Your task to perform on an android device: turn pop-ups on in chrome Image 0: 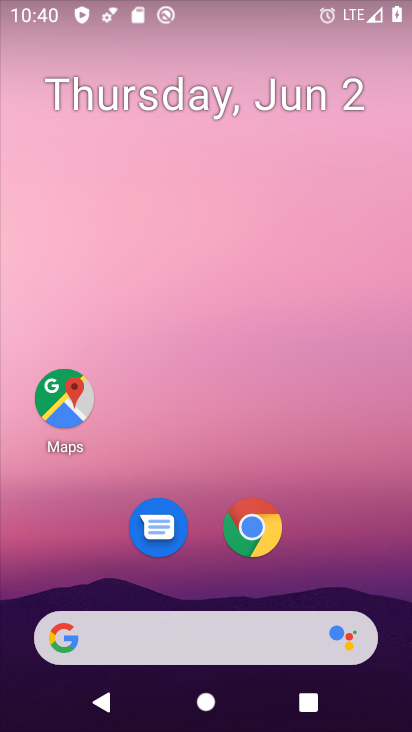
Step 0: click (258, 521)
Your task to perform on an android device: turn pop-ups on in chrome Image 1: 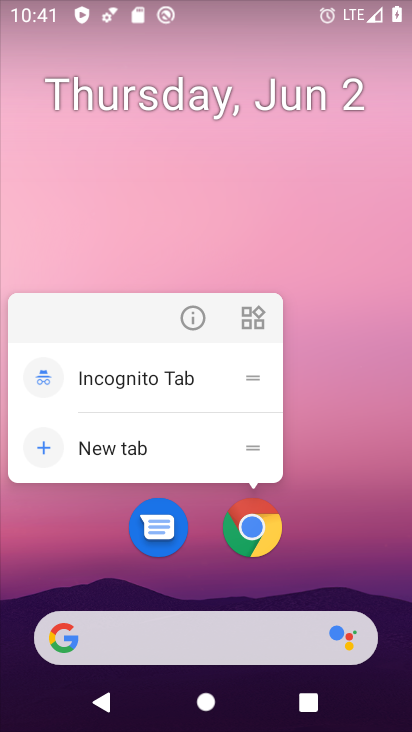
Step 1: click (258, 521)
Your task to perform on an android device: turn pop-ups on in chrome Image 2: 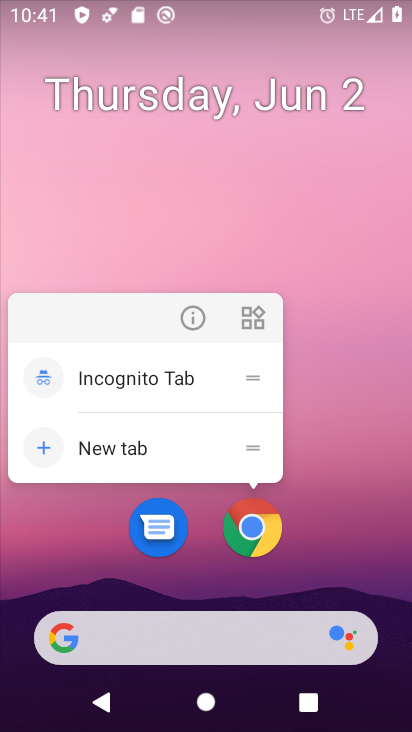
Step 2: click (245, 524)
Your task to perform on an android device: turn pop-ups on in chrome Image 3: 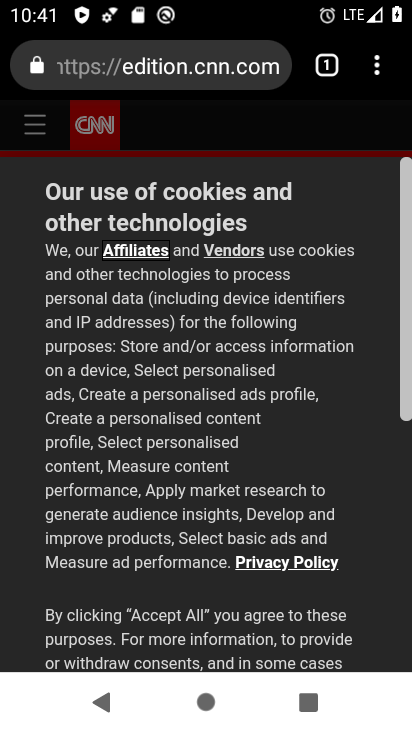
Step 3: drag from (378, 69) to (153, 576)
Your task to perform on an android device: turn pop-ups on in chrome Image 4: 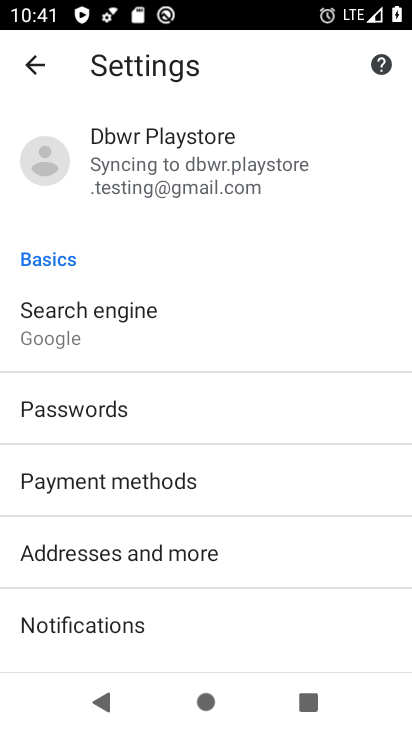
Step 4: drag from (188, 555) to (181, 268)
Your task to perform on an android device: turn pop-ups on in chrome Image 5: 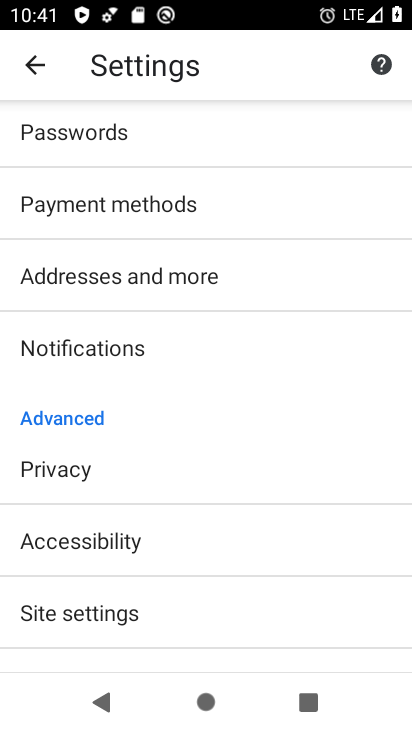
Step 5: click (125, 621)
Your task to perform on an android device: turn pop-ups on in chrome Image 6: 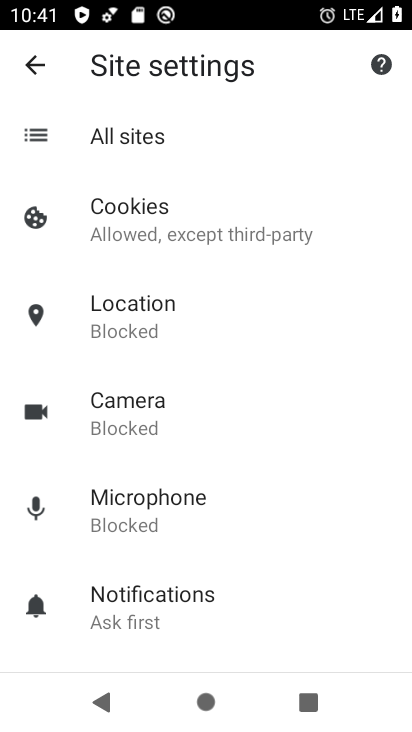
Step 6: drag from (169, 533) to (166, 157)
Your task to perform on an android device: turn pop-ups on in chrome Image 7: 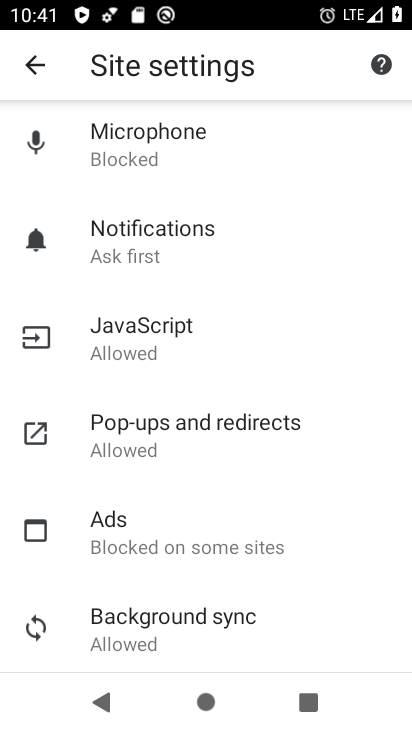
Step 7: click (172, 454)
Your task to perform on an android device: turn pop-ups on in chrome Image 8: 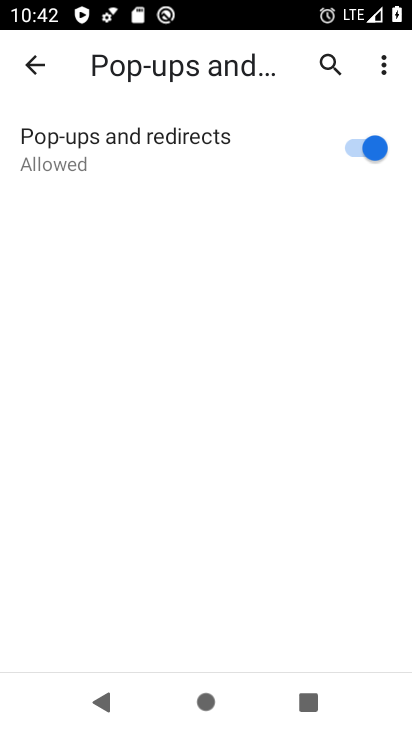
Step 8: task complete